Your task to perform on an android device: change your default location settings in chrome Image 0: 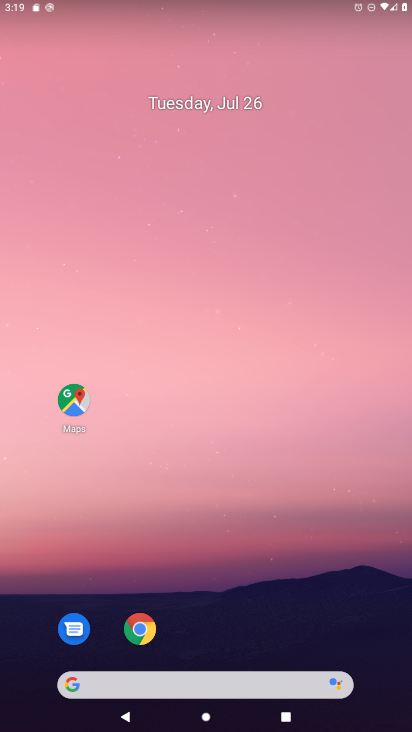
Step 0: click (144, 632)
Your task to perform on an android device: change your default location settings in chrome Image 1: 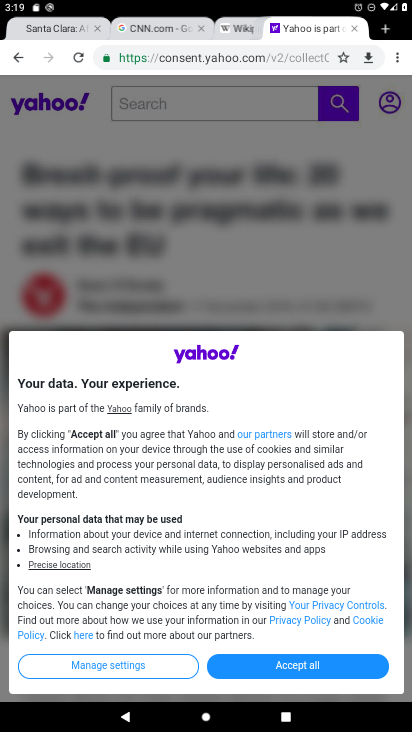
Step 1: click (401, 60)
Your task to perform on an android device: change your default location settings in chrome Image 2: 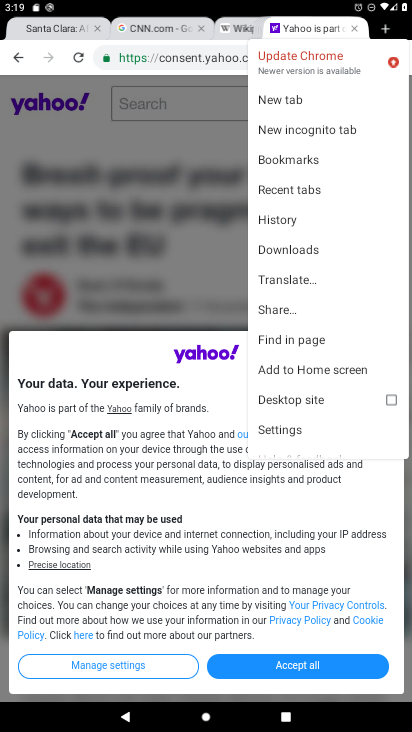
Step 2: click (299, 425)
Your task to perform on an android device: change your default location settings in chrome Image 3: 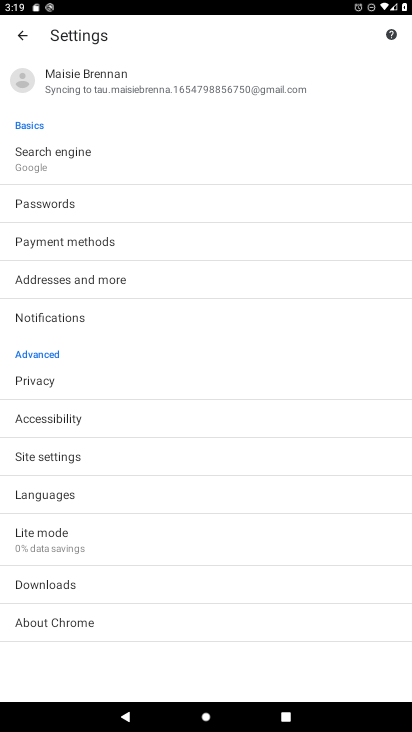
Step 3: click (118, 459)
Your task to perform on an android device: change your default location settings in chrome Image 4: 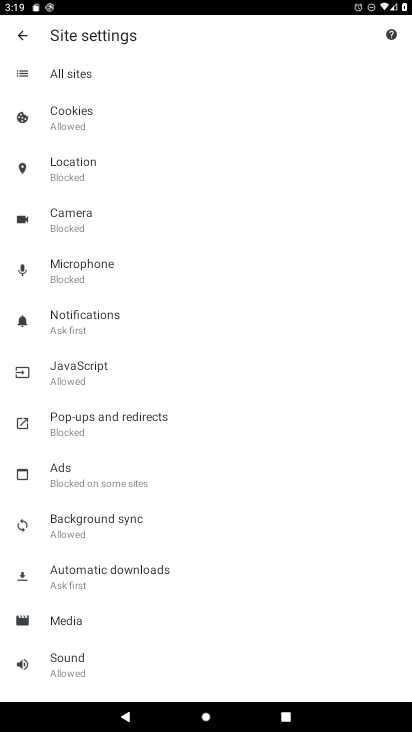
Step 4: click (66, 176)
Your task to perform on an android device: change your default location settings in chrome Image 5: 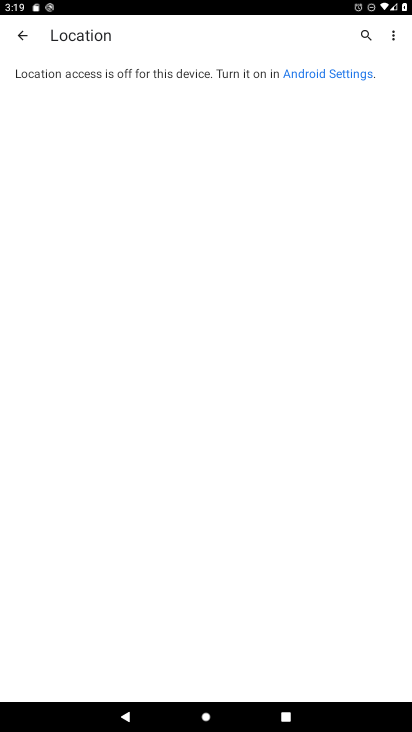
Step 5: task complete